Your task to perform on an android device: Is it going to rain tomorrow? Image 0: 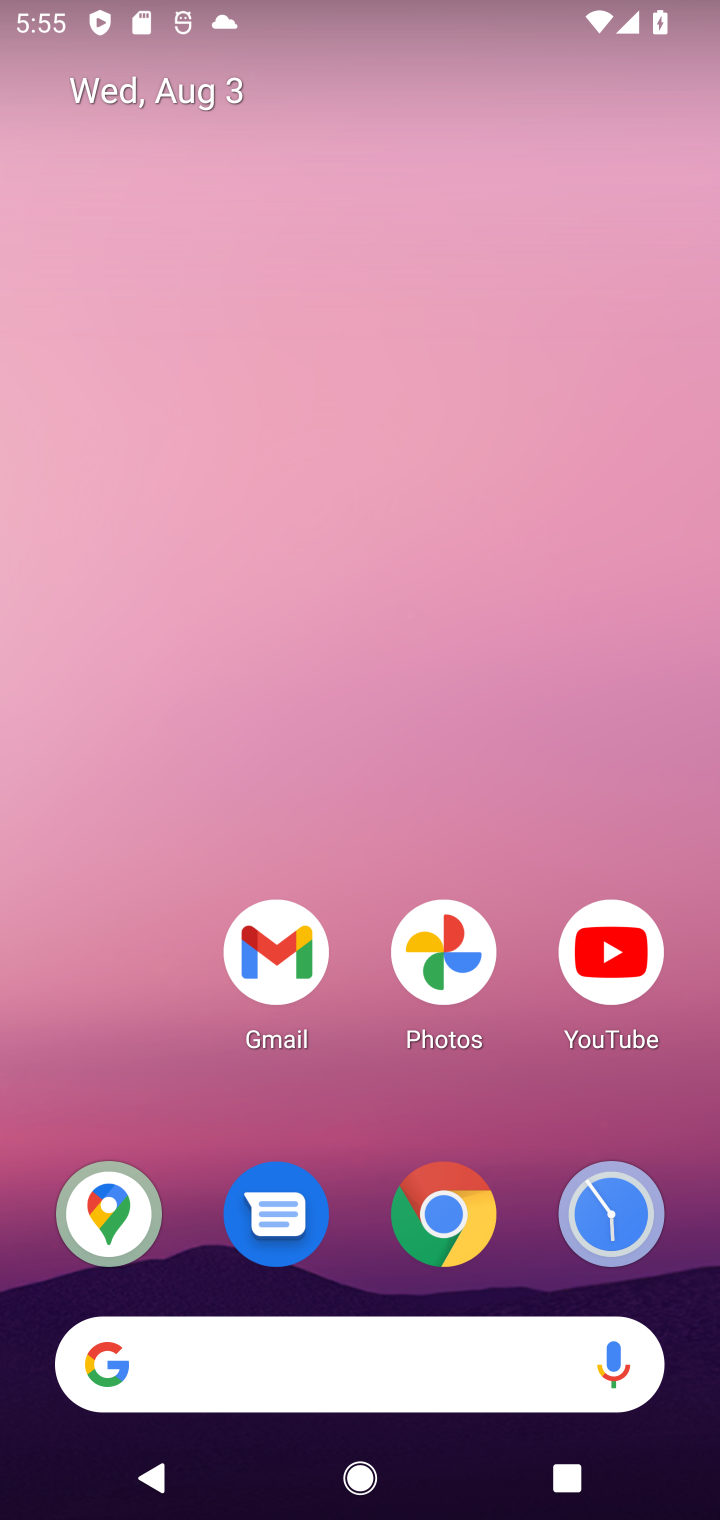
Step 0: drag from (254, 170) to (310, 670)
Your task to perform on an android device: Is it going to rain tomorrow? Image 1: 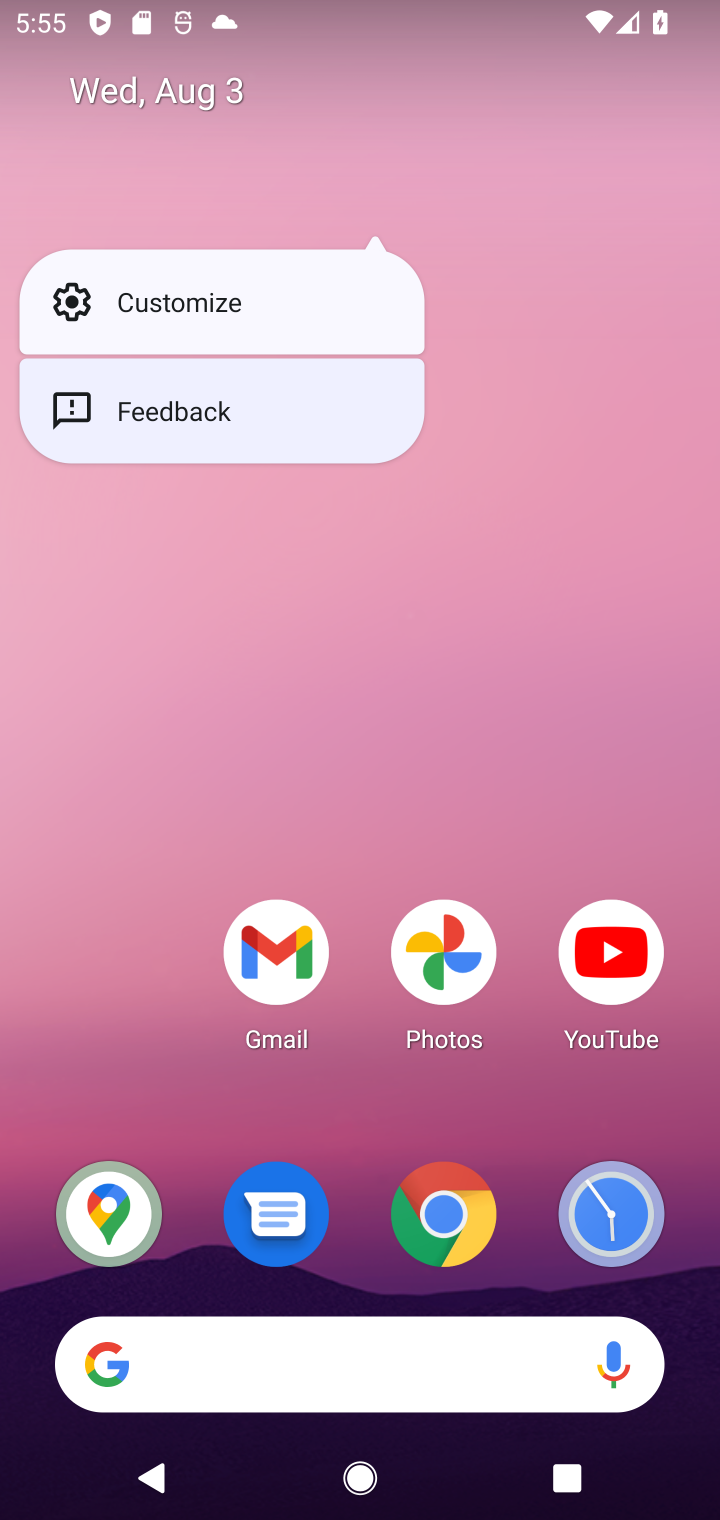
Step 1: drag from (125, 693) to (162, 0)
Your task to perform on an android device: Is it going to rain tomorrow? Image 2: 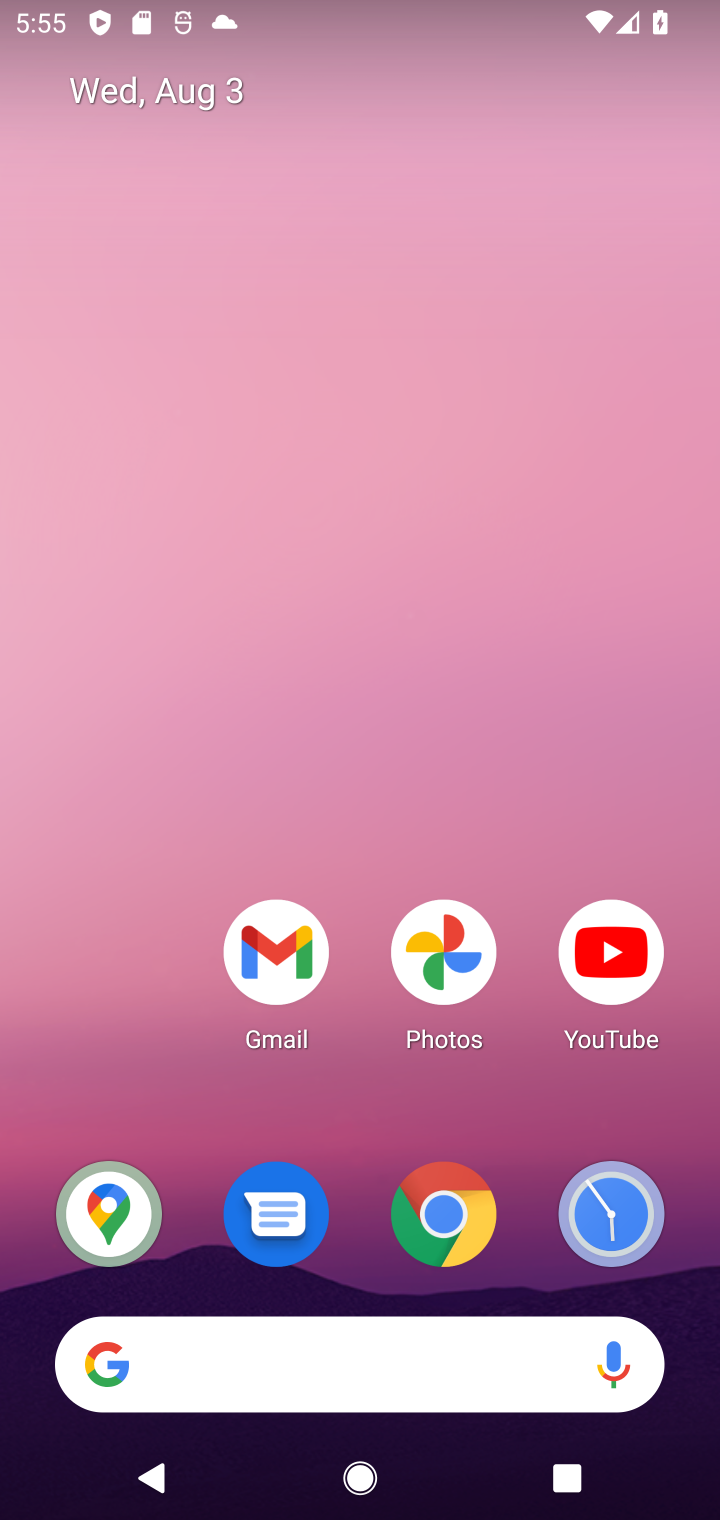
Step 2: drag from (158, 1091) to (386, 0)
Your task to perform on an android device: Is it going to rain tomorrow? Image 3: 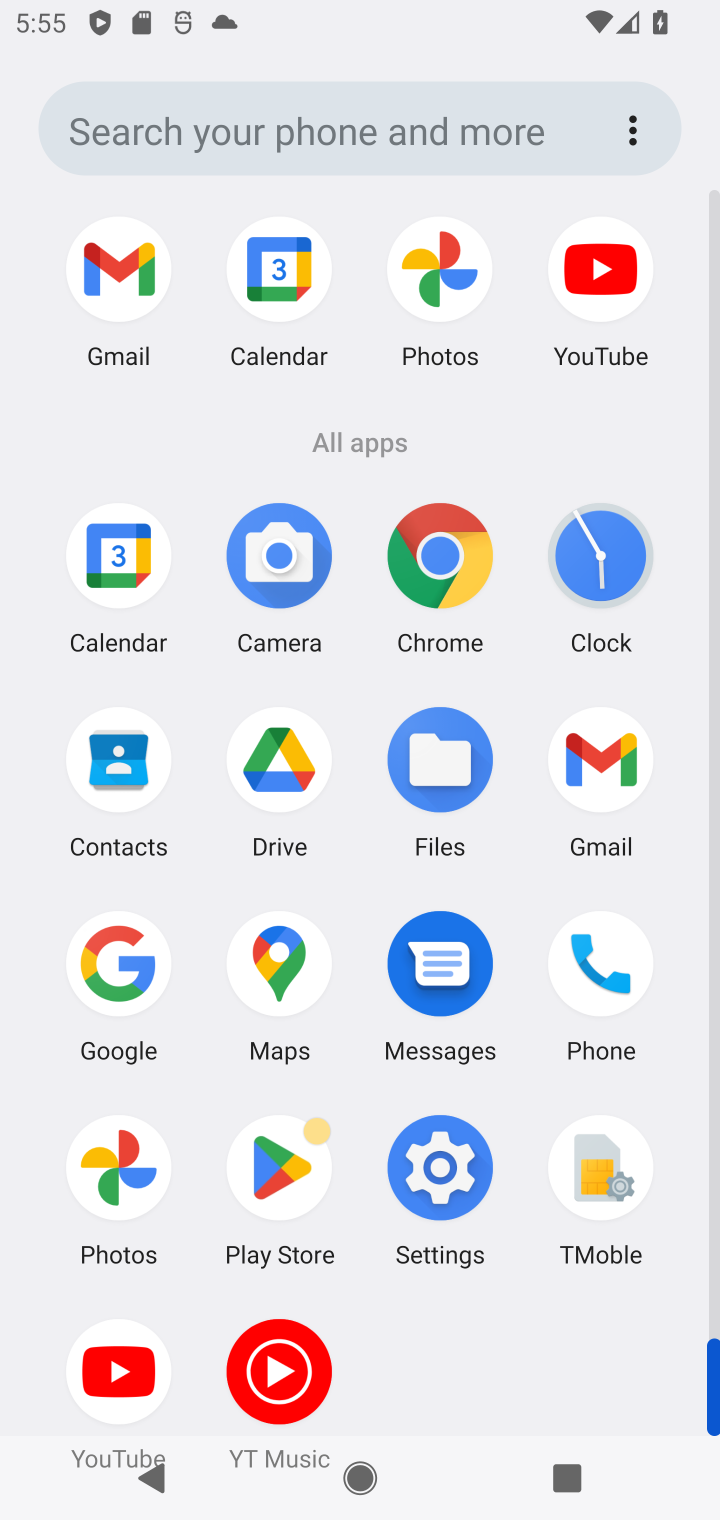
Step 3: click (116, 945)
Your task to perform on an android device: Is it going to rain tomorrow? Image 4: 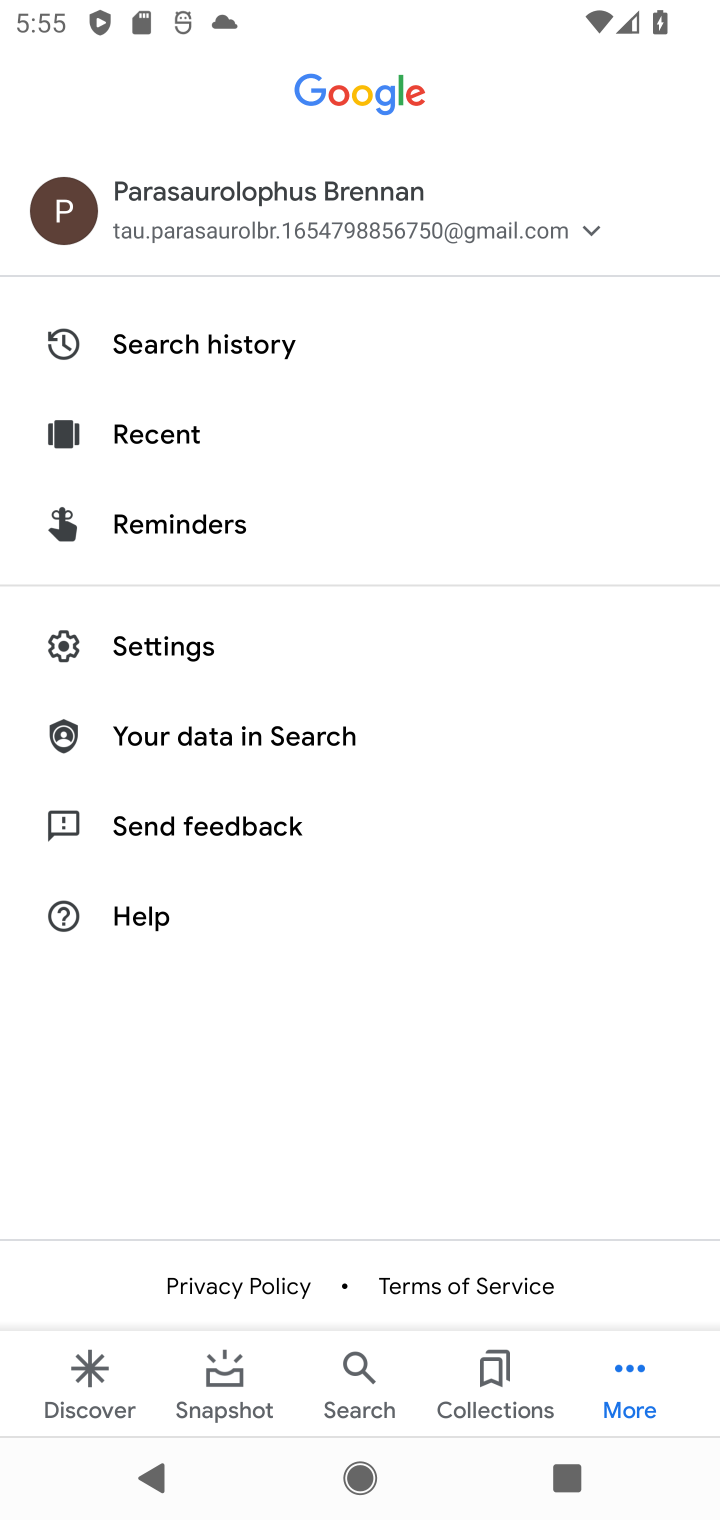
Step 4: press back button
Your task to perform on an android device: Is it going to rain tomorrow? Image 5: 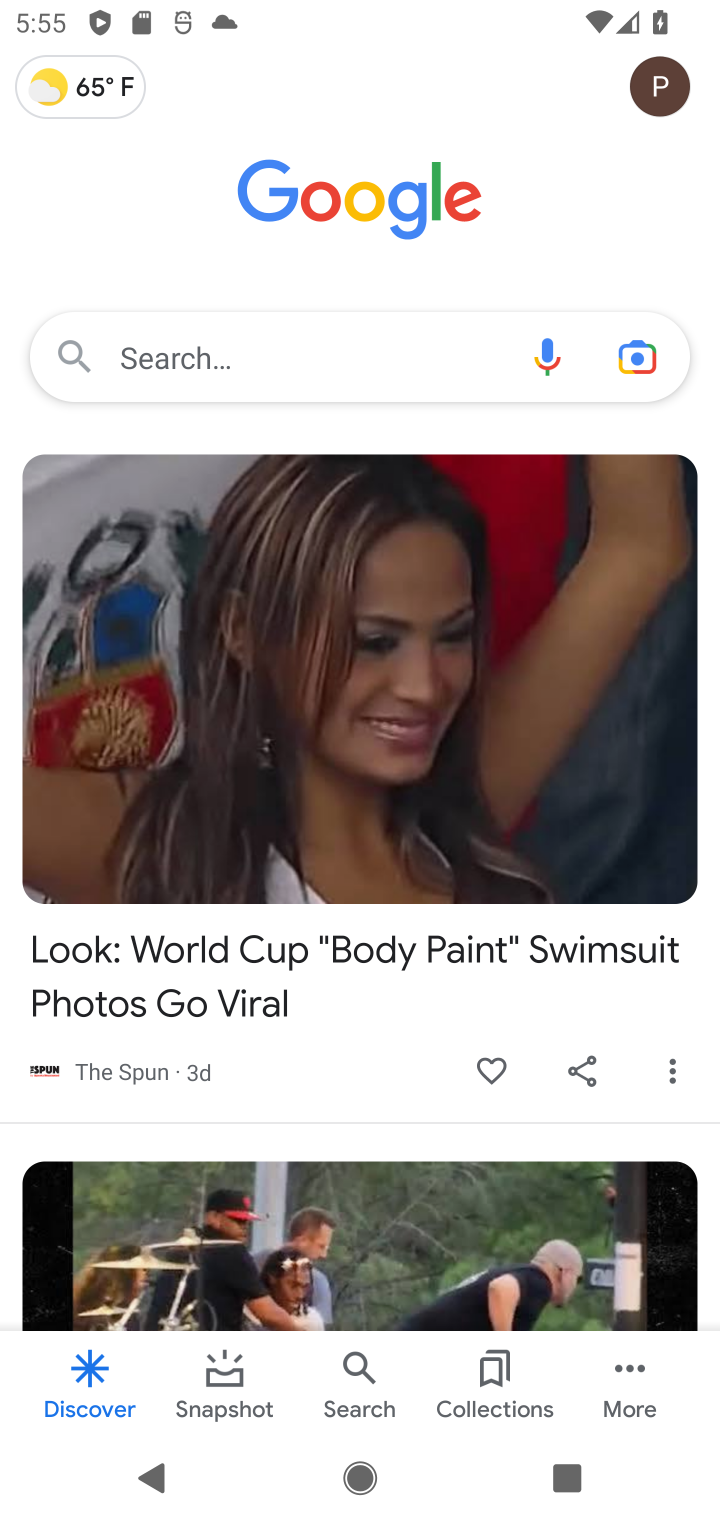
Step 5: click (110, 78)
Your task to perform on an android device: Is it going to rain tomorrow? Image 6: 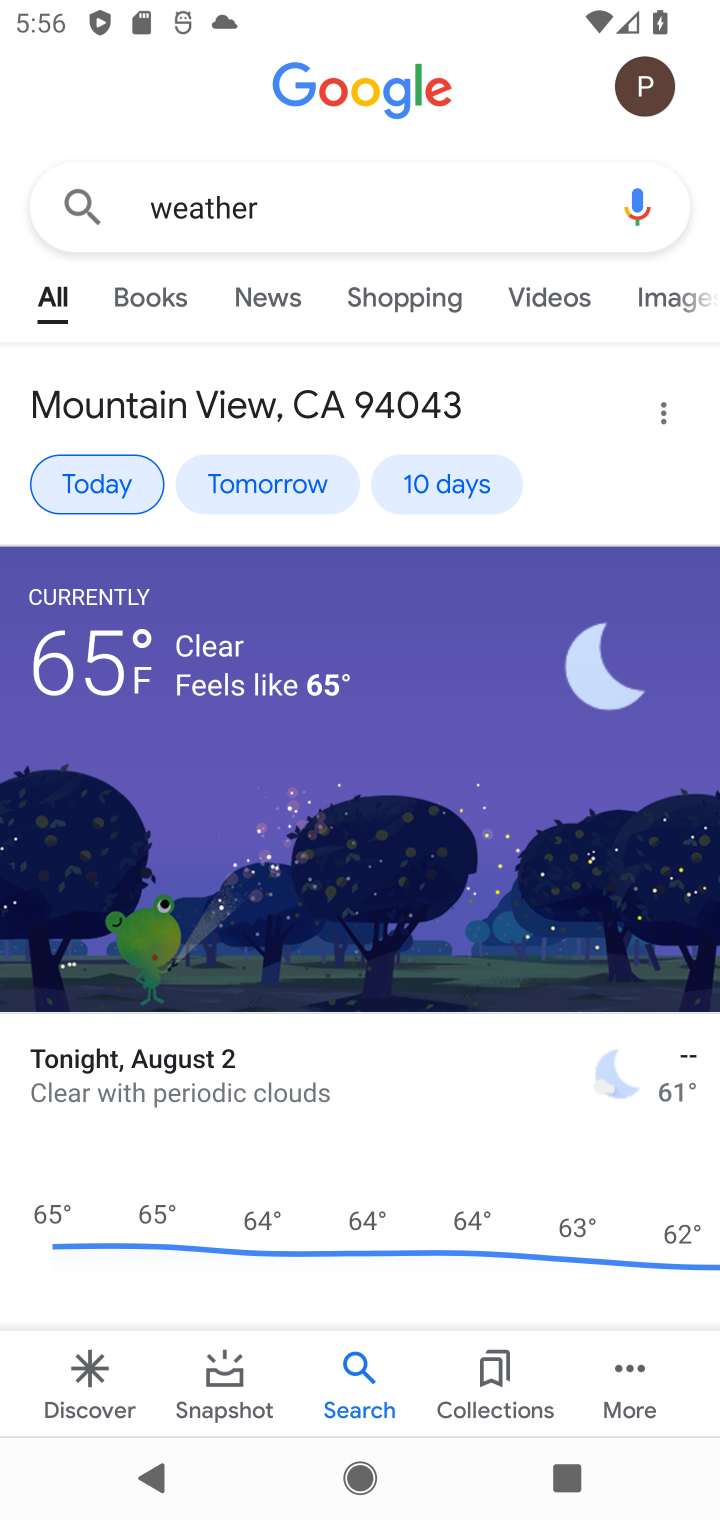
Step 6: click (291, 478)
Your task to perform on an android device: Is it going to rain tomorrow? Image 7: 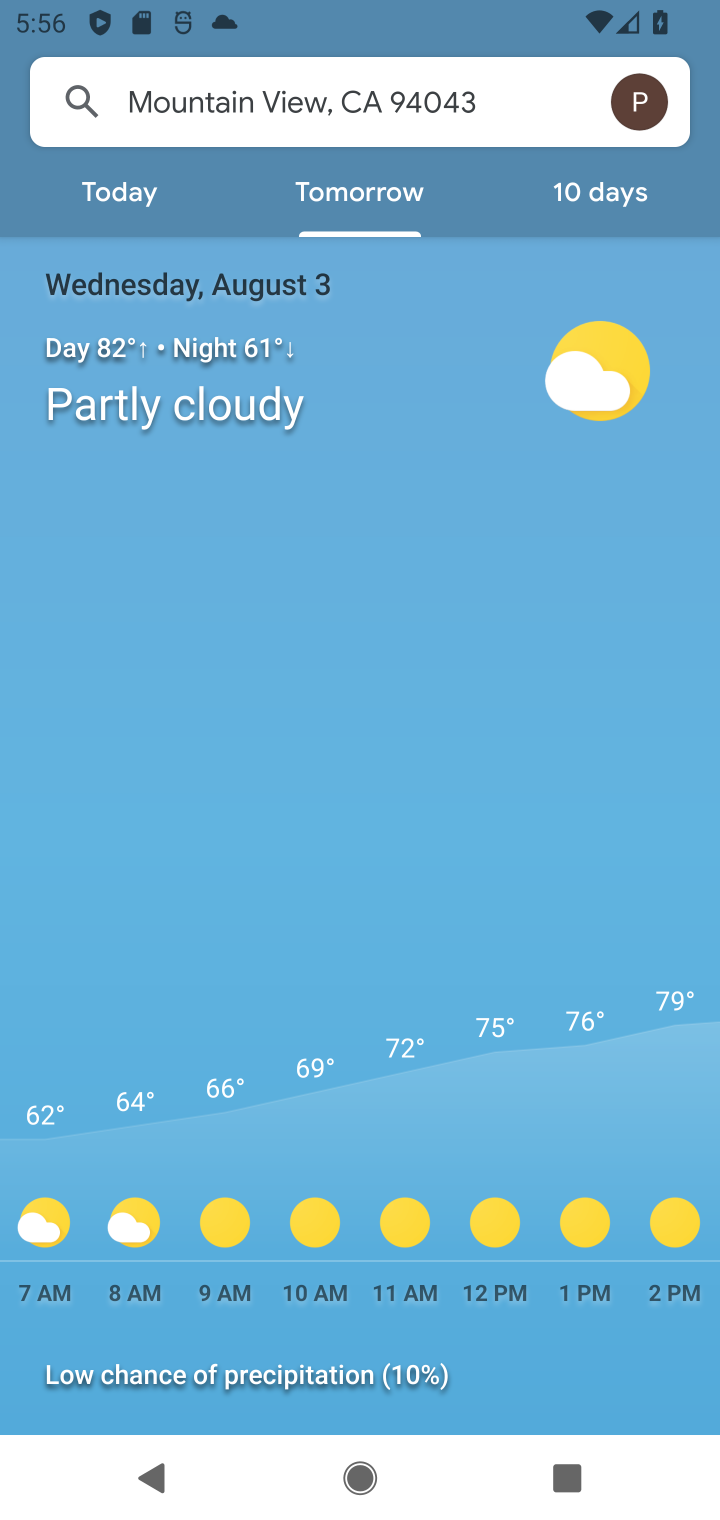
Step 7: task complete